Your task to perform on an android device: open app "Messages" Image 0: 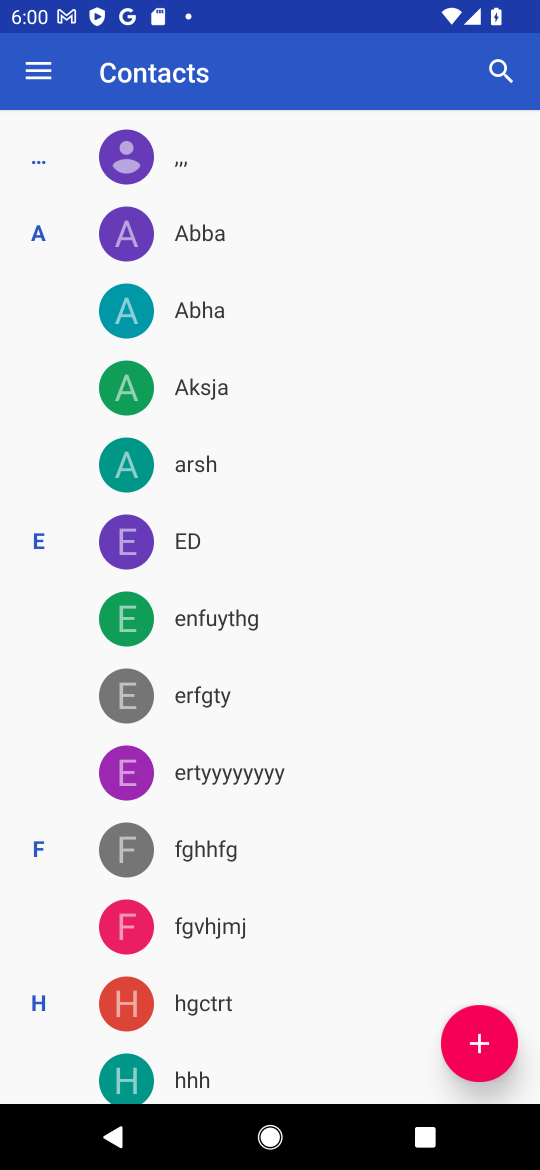
Step 0: press home button
Your task to perform on an android device: open app "Messages" Image 1: 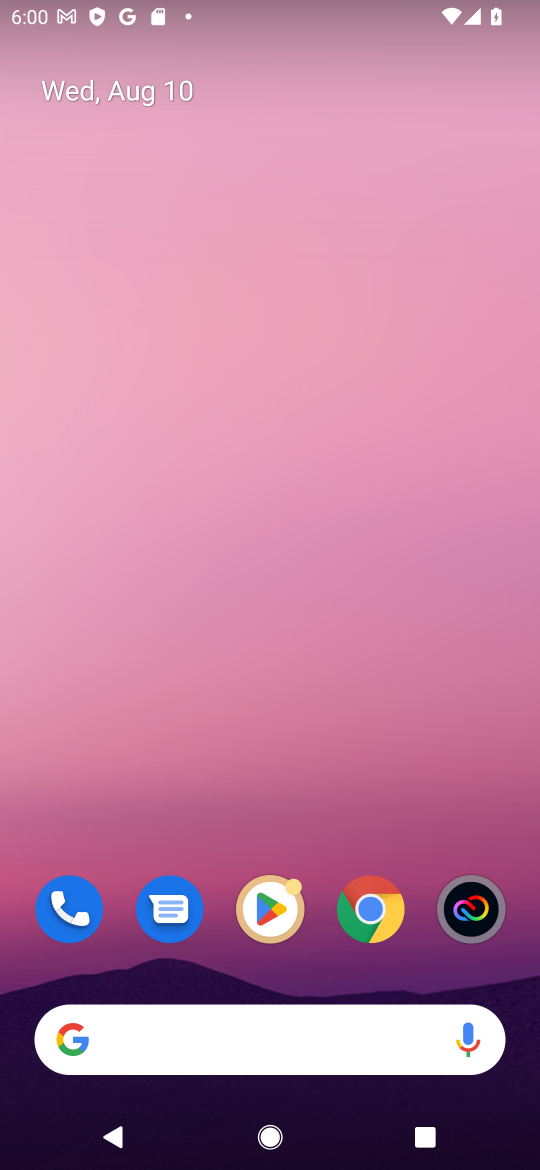
Step 1: click (180, 909)
Your task to perform on an android device: open app "Messages" Image 2: 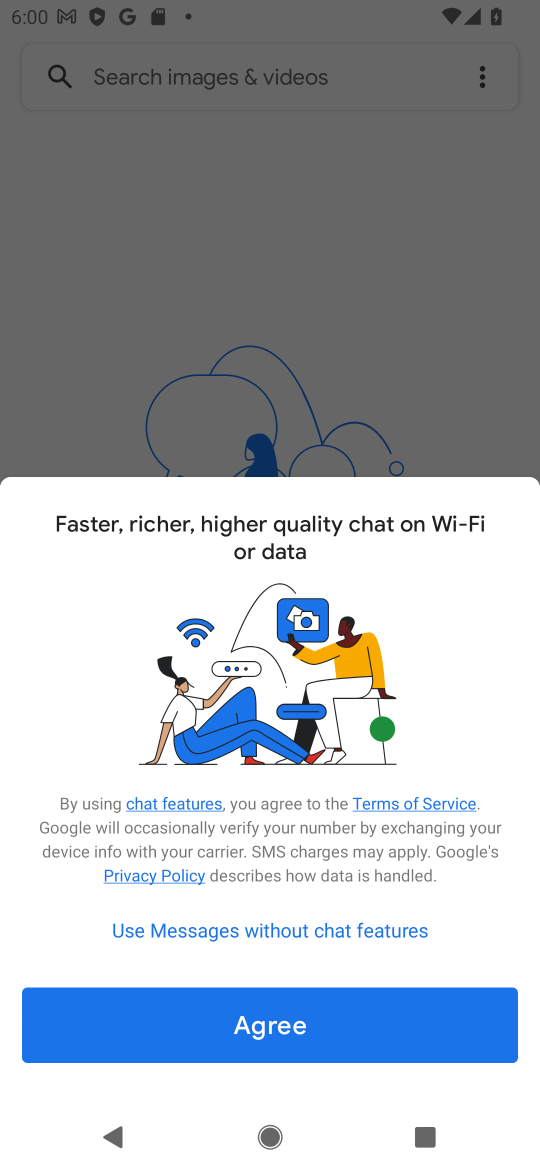
Step 2: click (351, 1039)
Your task to perform on an android device: open app "Messages" Image 3: 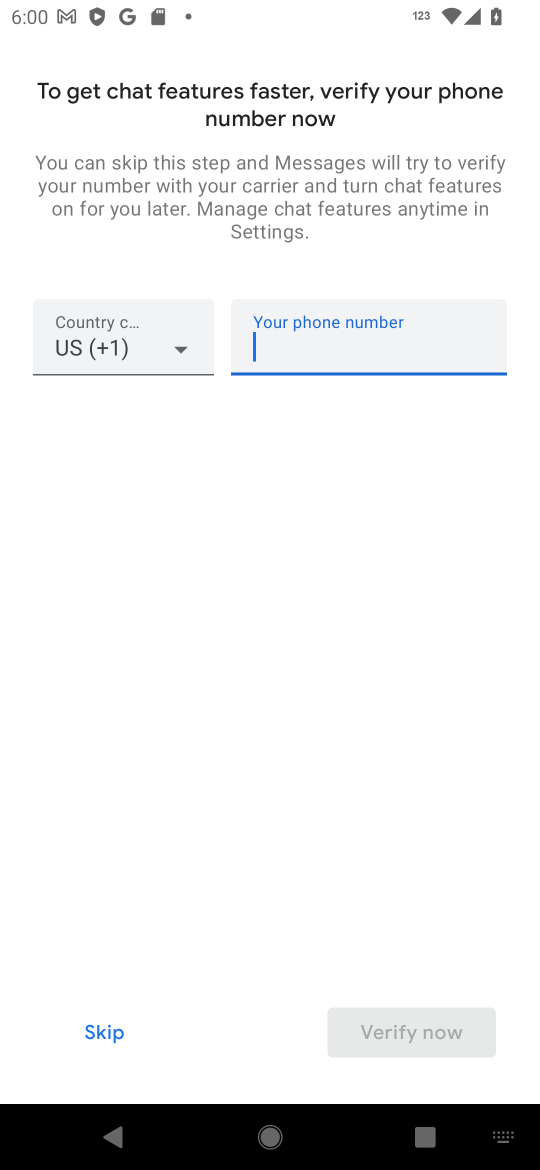
Step 3: task complete